Your task to perform on an android device: set an alarm Image 0: 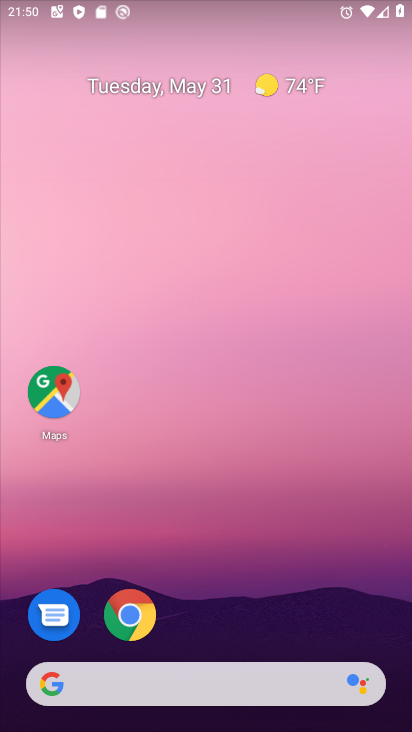
Step 0: drag from (214, 621) to (214, 44)
Your task to perform on an android device: set an alarm Image 1: 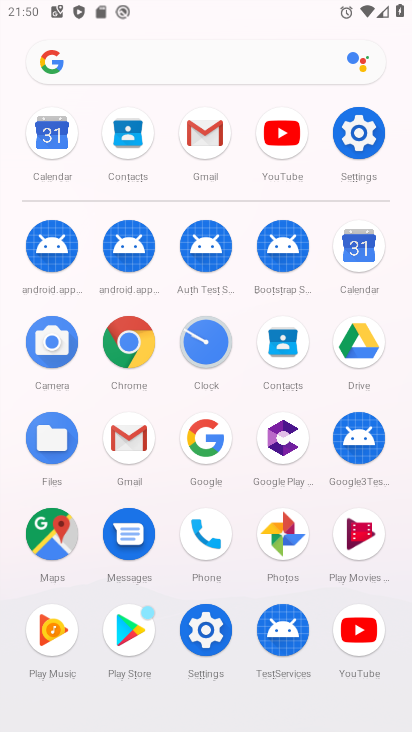
Step 1: click (219, 335)
Your task to perform on an android device: set an alarm Image 2: 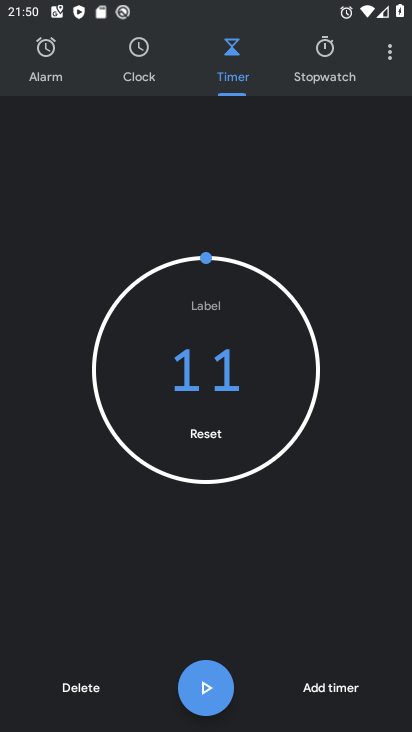
Step 2: click (55, 54)
Your task to perform on an android device: set an alarm Image 3: 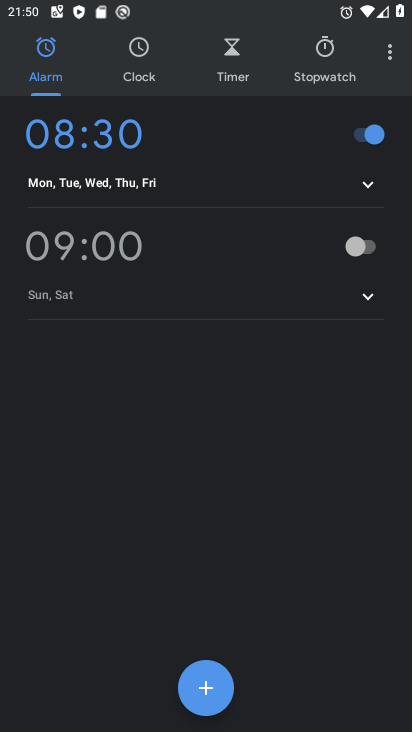
Step 3: click (356, 248)
Your task to perform on an android device: set an alarm Image 4: 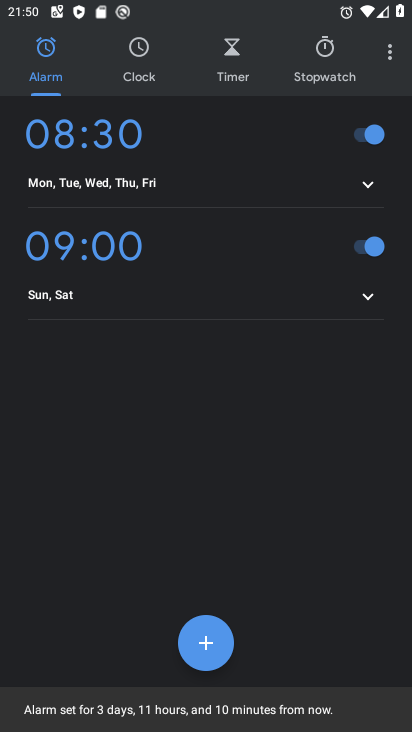
Step 4: task complete